Your task to perform on an android device: Go to notification settings Image 0: 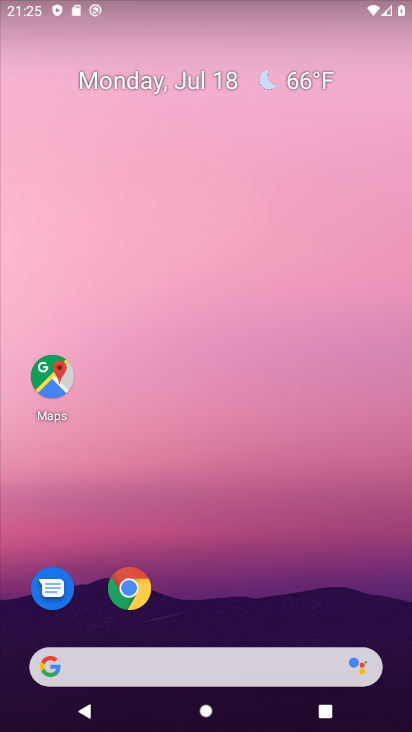
Step 0: drag from (258, 557) to (155, 94)
Your task to perform on an android device: Go to notification settings Image 1: 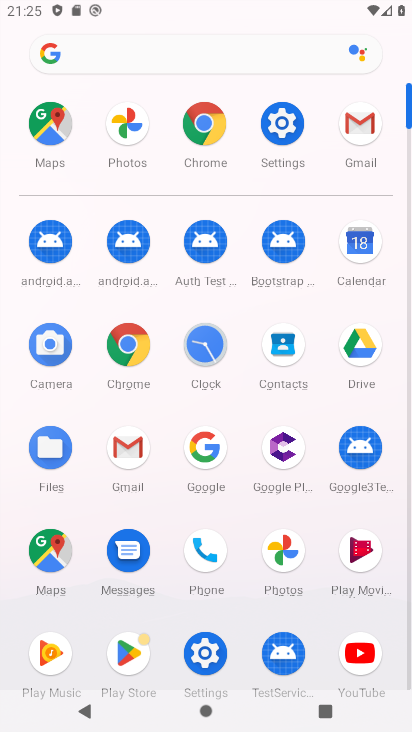
Step 1: click (201, 643)
Your task to perform on an android device: Go to notification settings Image 2: 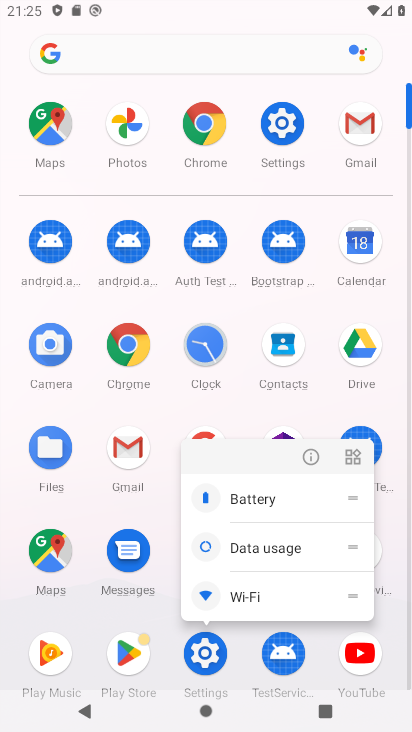
Step 2: click (201, 643)
Your task to perform on an android device: Go to notification settings Image 3: 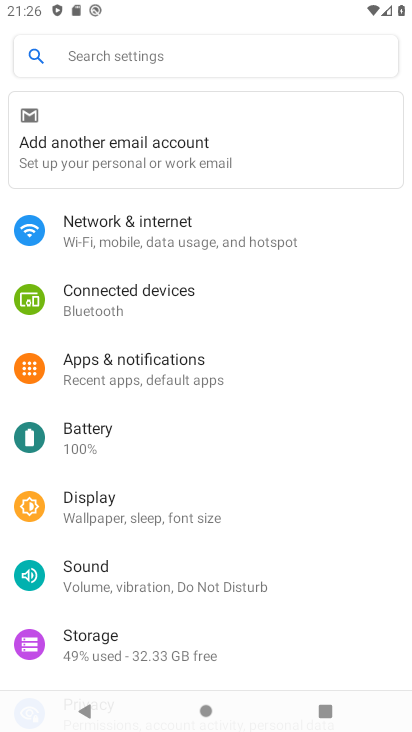
Step 3: click (67, 383)
Your task to perform on an android device: Go to notification settings Image 4: 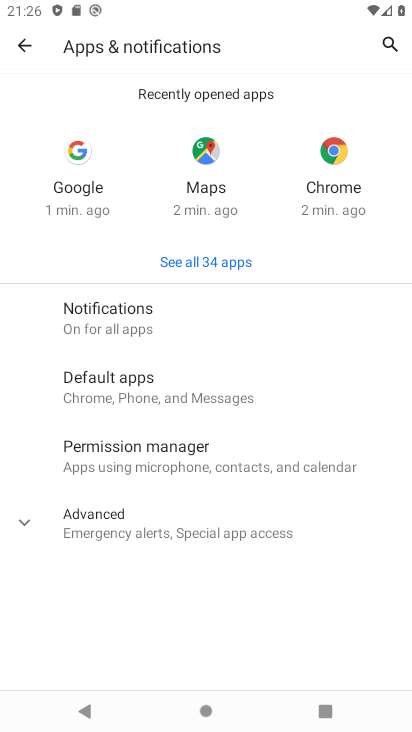
Step 4: click (73, 336)
Your task to perform on an android device: Go to notification settings Image 5: 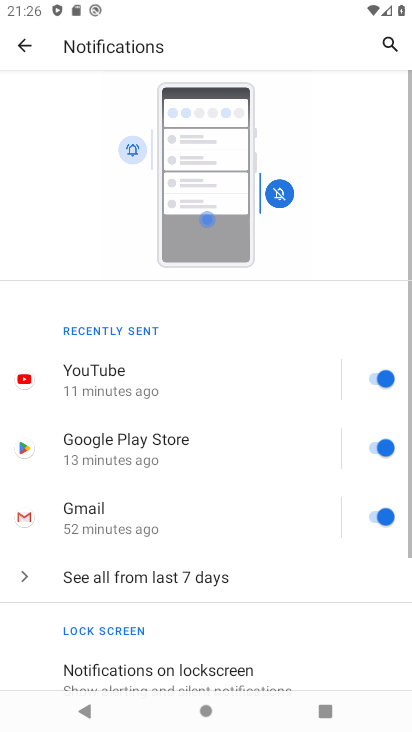
Step 5: task complete